Your task to perform on an android device: make emails show in primary in the gmail app Image 0: 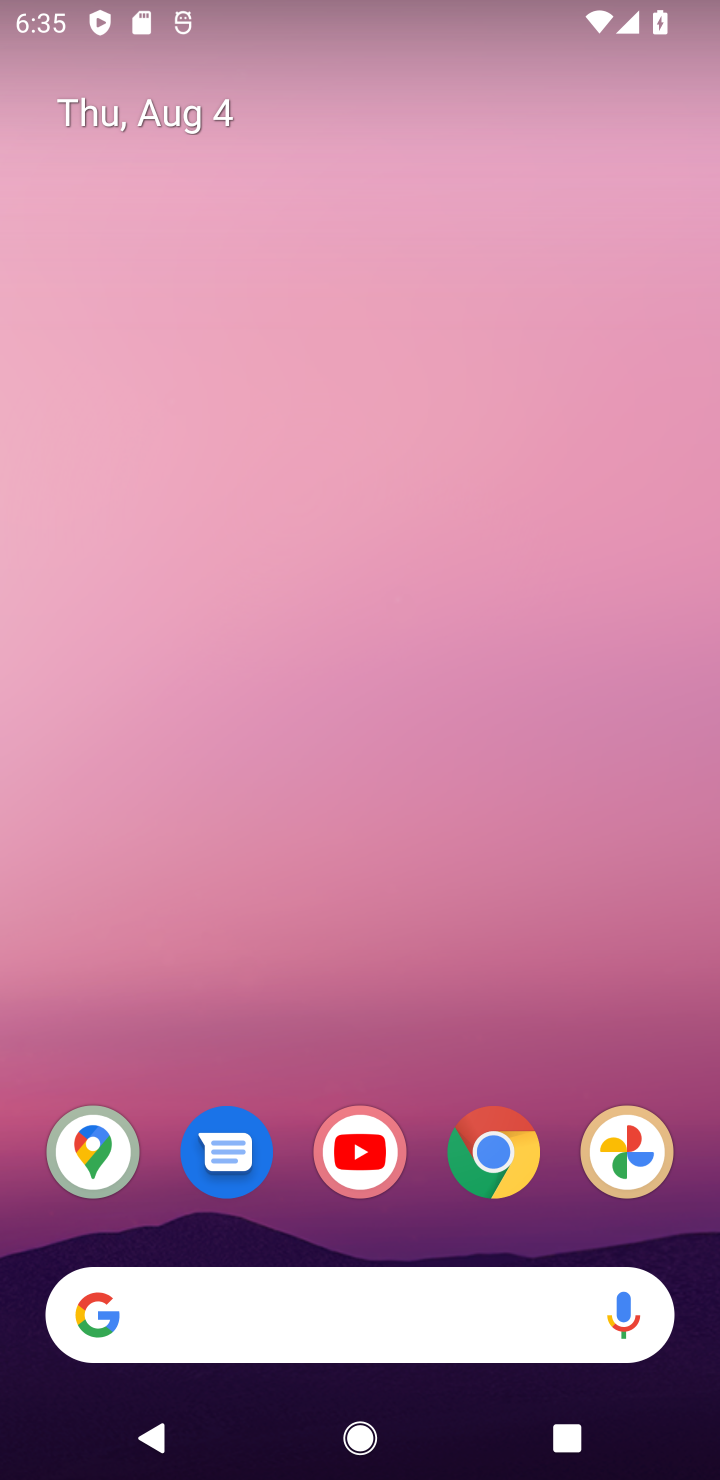
Step 0: drag from (309, 1191) to (446, 164)
Your task to perform on an android device: make emails show in primary in the gmail app Image 1: 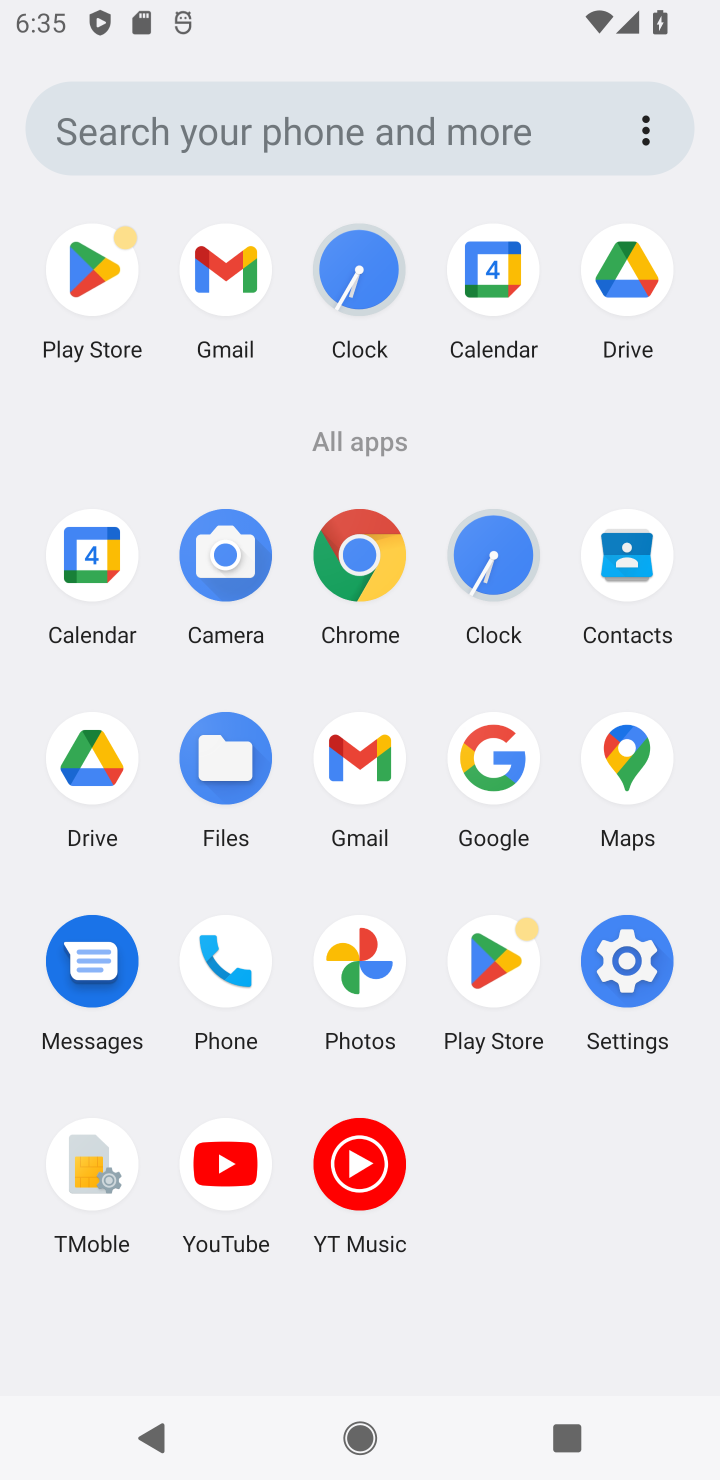
Step 1: click (246, 257)
Your task to perform on an android device: make emails show in primary in the gmail app Image 2: 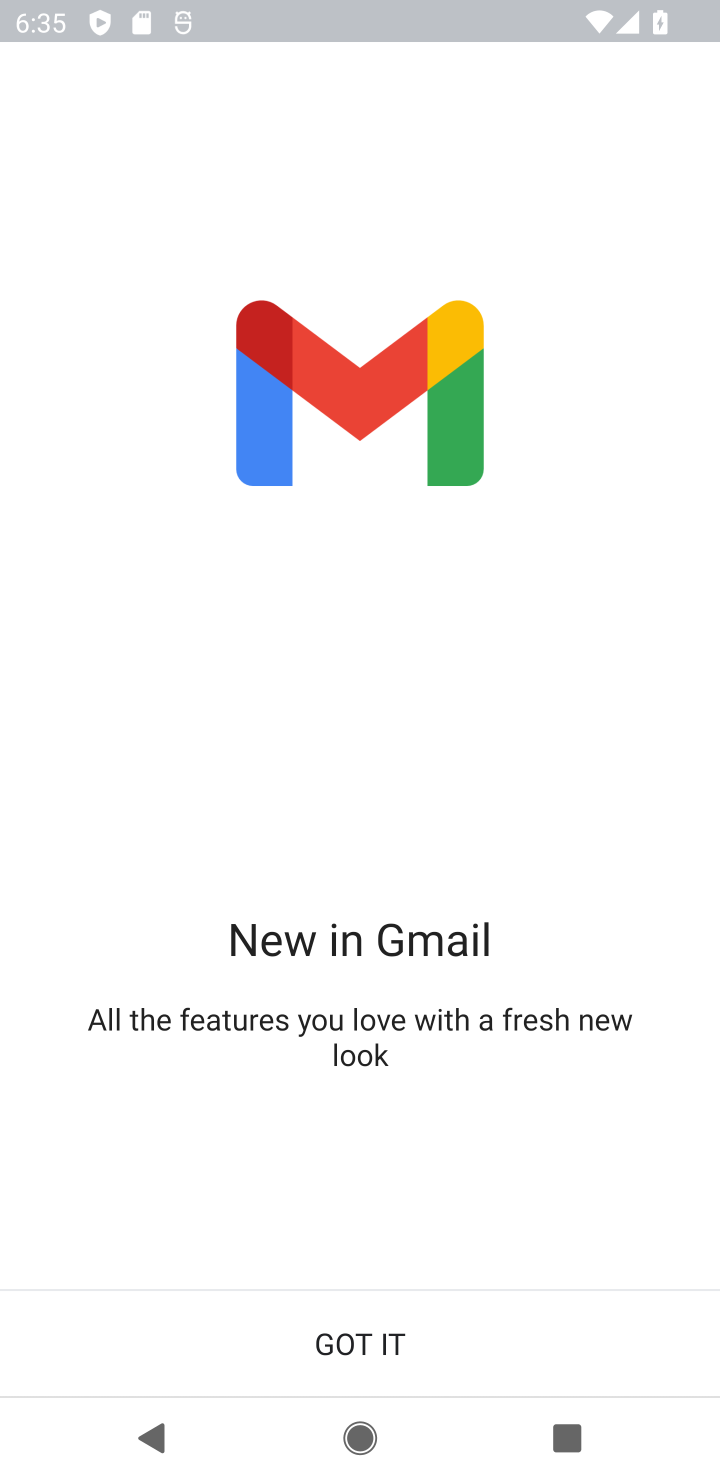
Step 2: click (349, 1349)
Your task to perform on an android device: make emails show in primary in the gmail app Image 3: 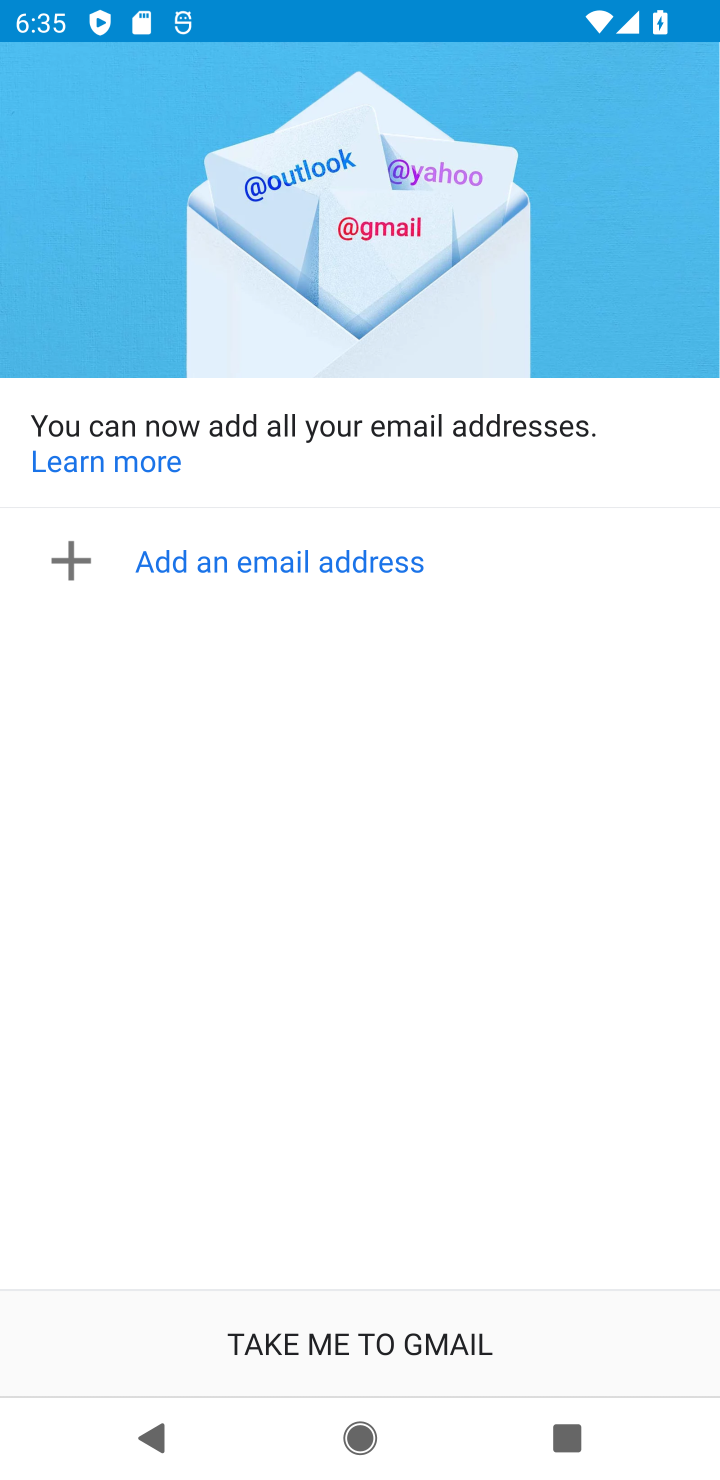
Step 3: click (333, 1330)
Your task to perform on an android device: make emails show in primary in the gmail app Image 4: 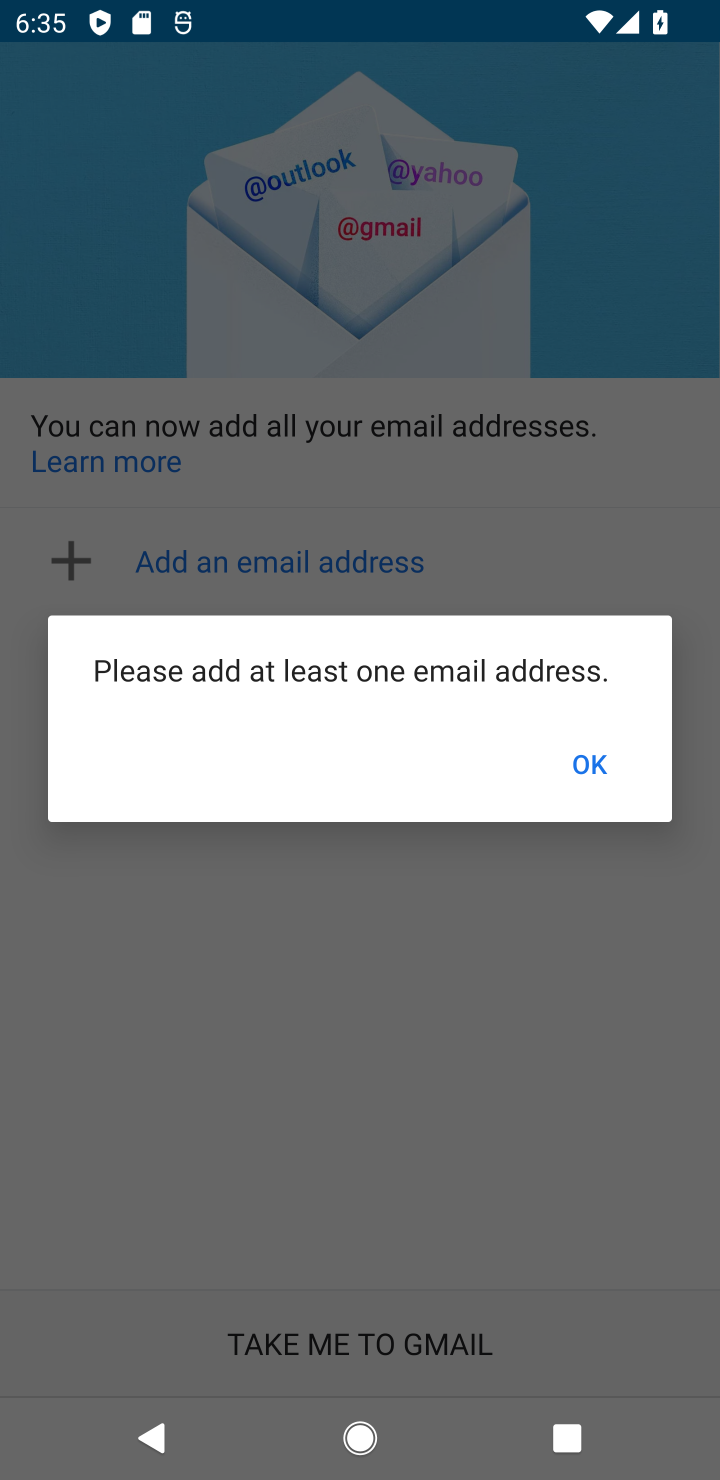
Step 4: click (592, 756)
Your task to perform on an android device: make emails show in primary in the gmail app Image 5: 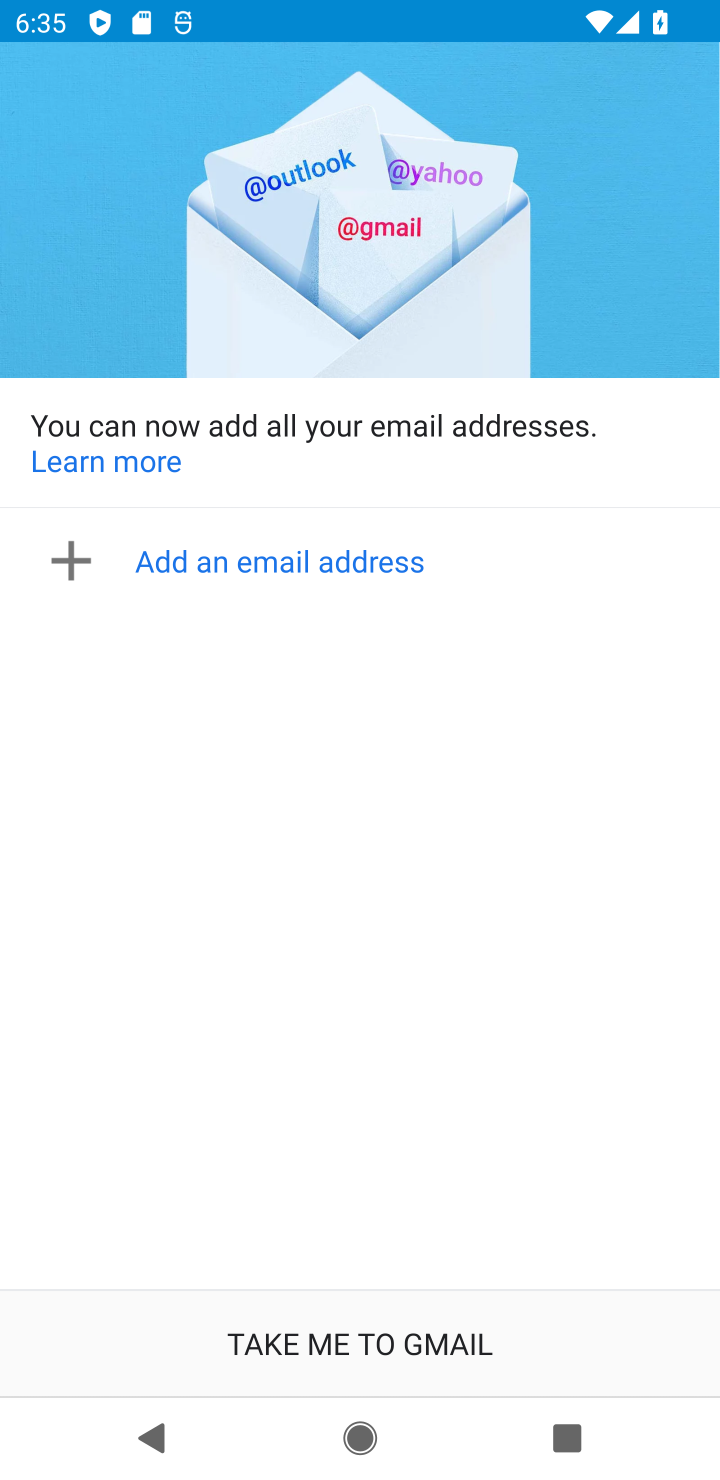
Step 5: task complete